Your task to perform on an android device: toggle data saver in the chrome app Image 0: 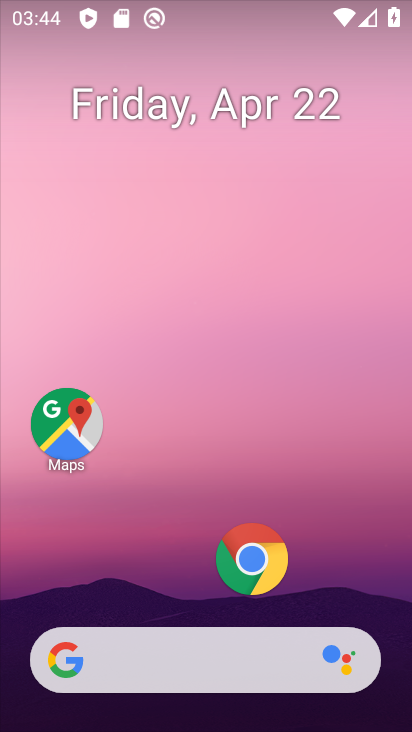
Step 0: click (247, 560)
Your task to perform on an android device: toggle data saver in the chrome app Image 1: 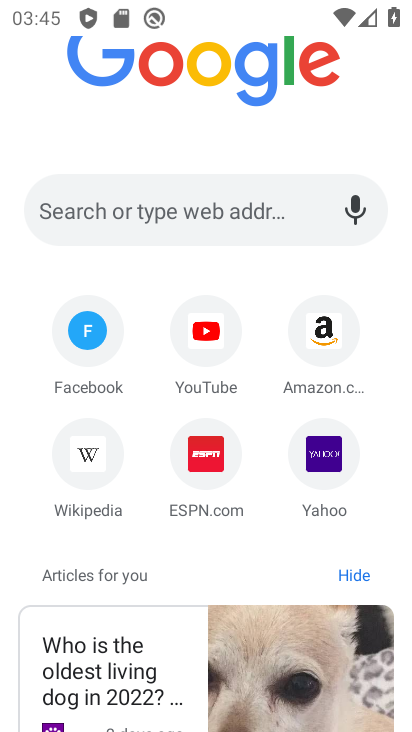
Step 1: drag from (299, 114) to (243, 519)
Your task to perform on an android device: toggle data saver in the chrome app Image 2: 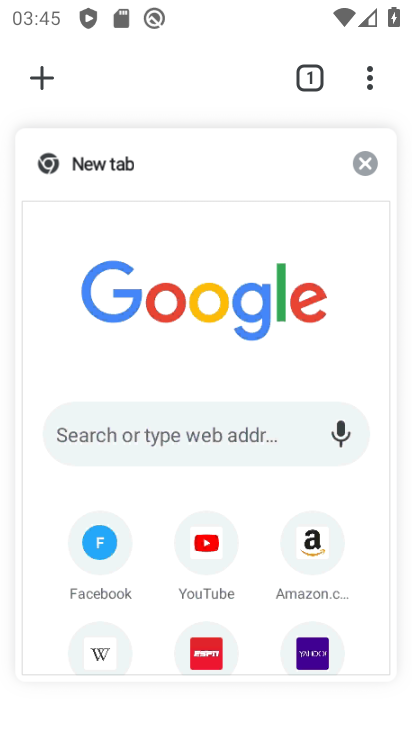
Step 2: click (291, 164)
Your task to perform on an android device: toggle data saver in the chrome app Image 3: 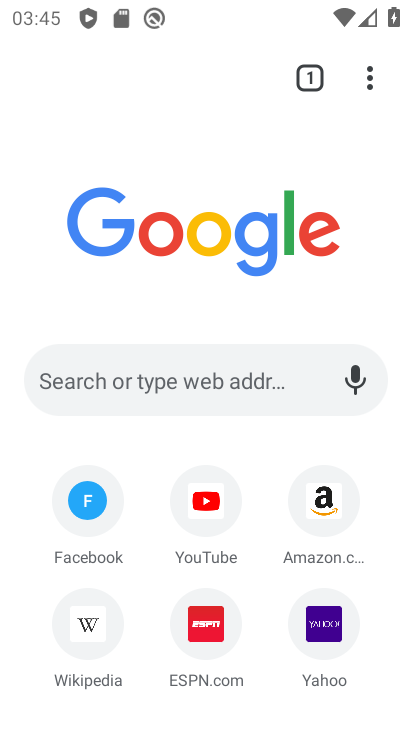
Step 3: click (370, 82)
Your task to perform on an android device: toggle data saver in the chrome app Image 4: 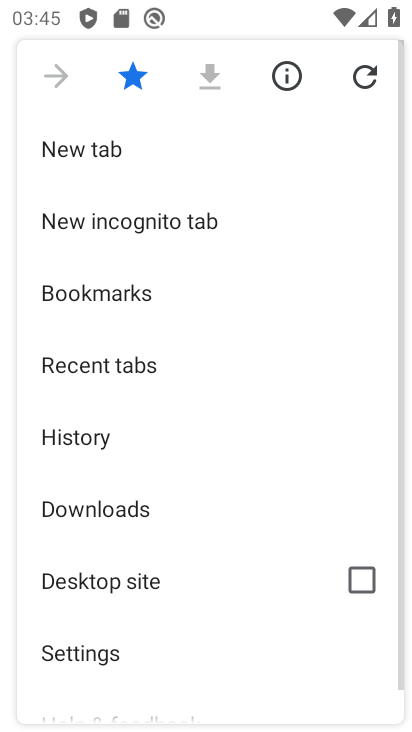
Step 4: drag from (109, 585) to (160, 272)
Your task to perform on an android device: toggle data saver in the chrome app Image 5: 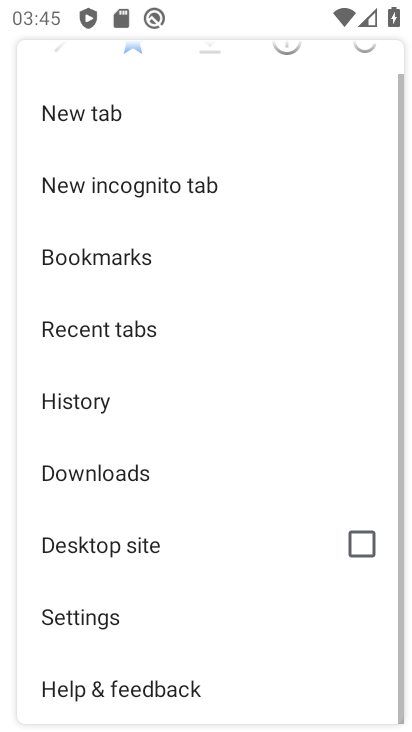
Step 5: click (89, 616)
Your task to perform on an android device: toggle data saver in the chrome app Image 6: 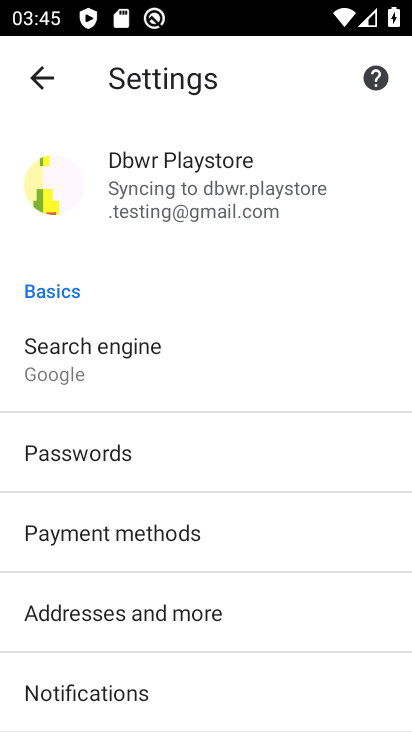
Step 6: drag from (78, 563) to (165, 170)
Your task to perform on an android device: toggle data saver in the chrome app Image 7: 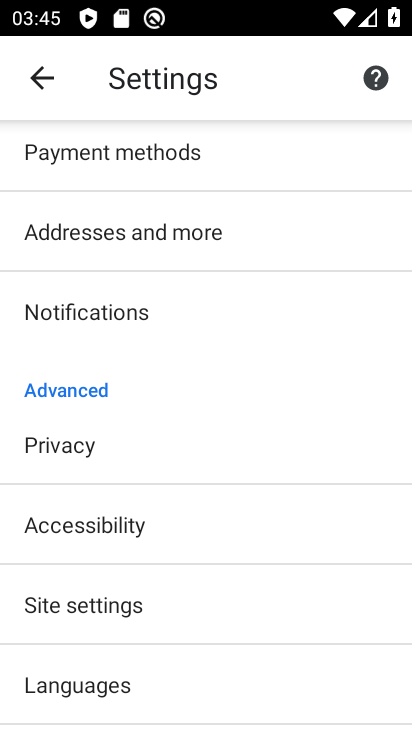
Step 7: drag from (85, 647) to (142, 334)
Your task to perform on an android device: toggle data saver in the chrome app Image 8: 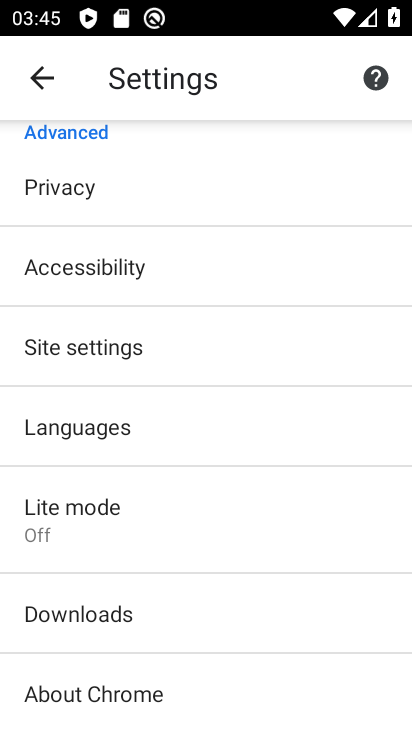
Step 8: click (97, 522)
Your task to perform on an android device: toggle data saver in the chrome app Image 9: 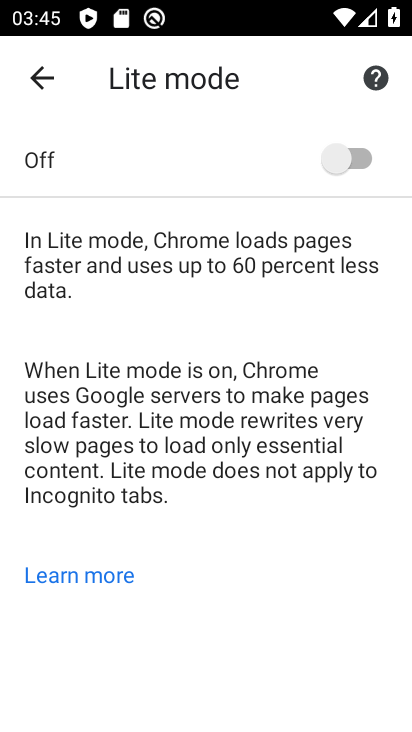
Step 9: click (349, 154)
Your task to perform on an android device: toggle data saver in the chrome app Image 10: 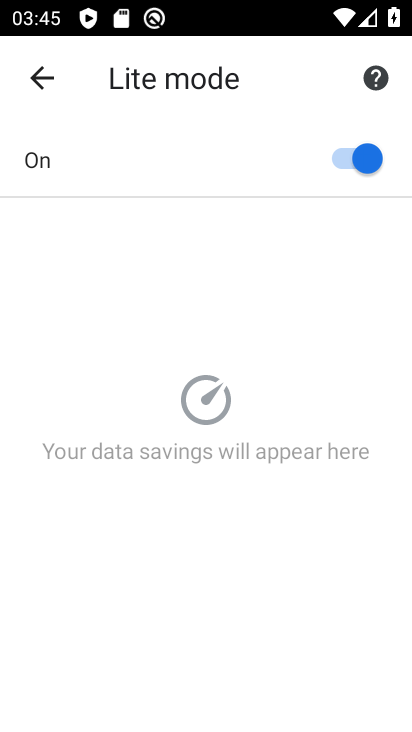
Step 10: task complete